Your task to perform on an android device: turn off translation in the chrome app Image 0: 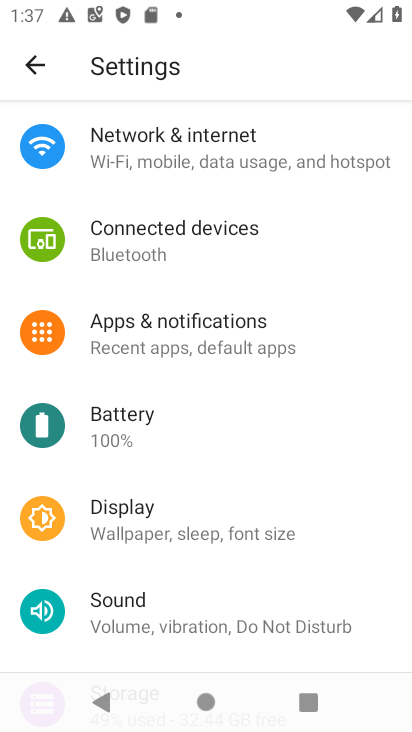
Step 0: press home button
Your task to perform on an android device: turn off translation in the chrome app Image 1: 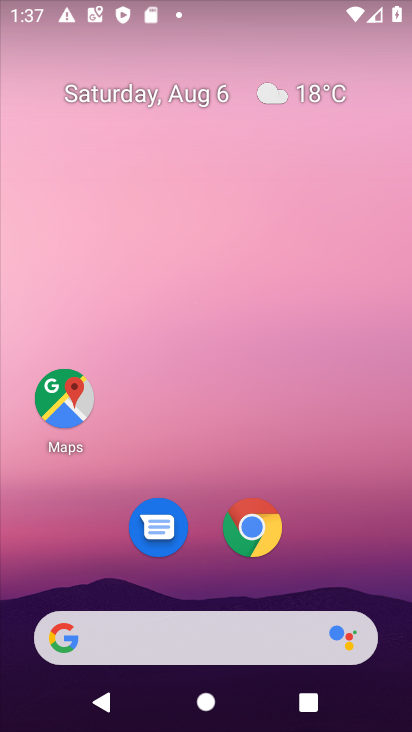
Step 1: drag from (252, 431) to (264, 87)
Your task to perform on an android device: turn off translation in the chrome app Image 2: 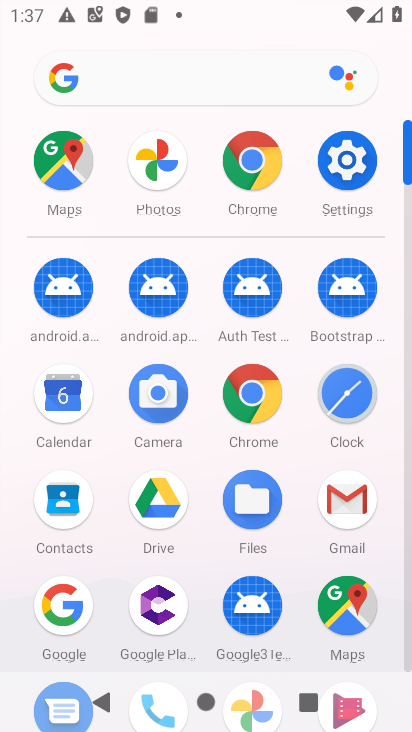
Step 2: click (264, 413)
Your task to perform on an android device: turn off translation in the chrome app Image 3: 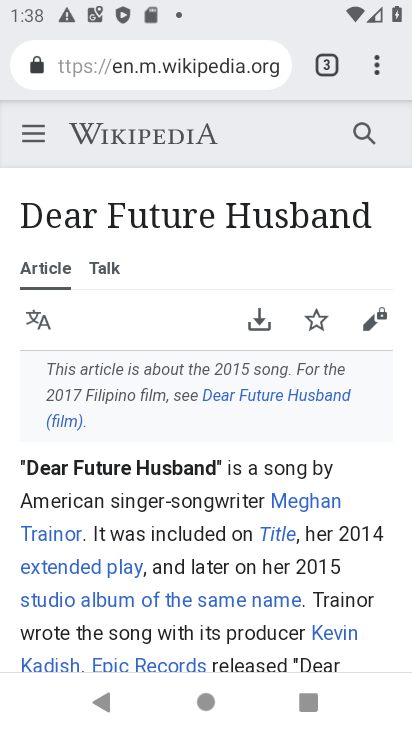
Step 3: click (381, 65)
Your task to perform on an android device: turn off translation in the chrome app Image 4: 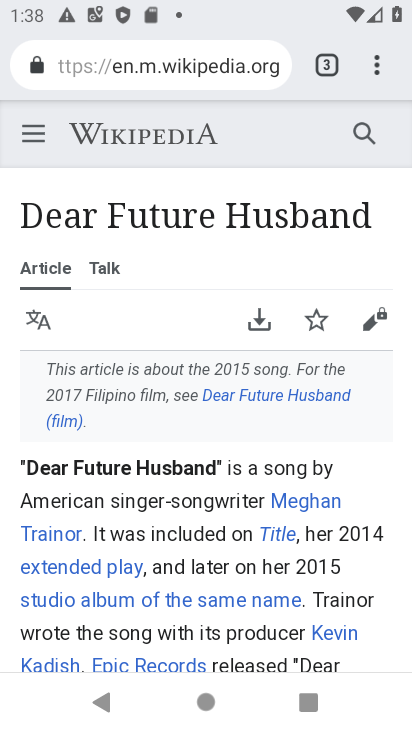
Step 4: click (373, 70)
Your task to perform on an android device: turn off translation in the chrome app Image 5: 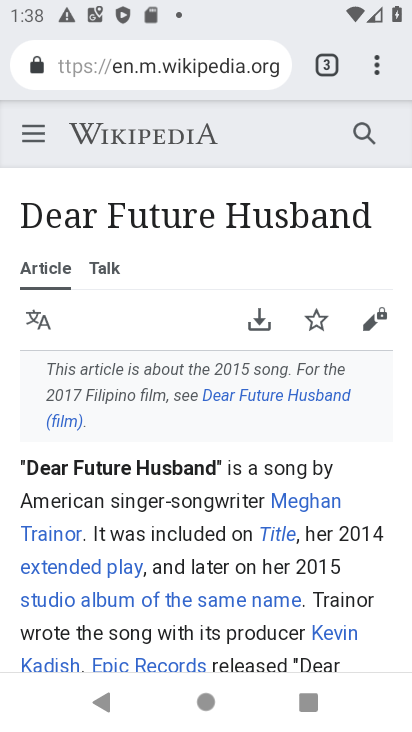
Step 5: click (361, 69)
Your task to perform on an android device: turn off translation in the chrome app Image 6: 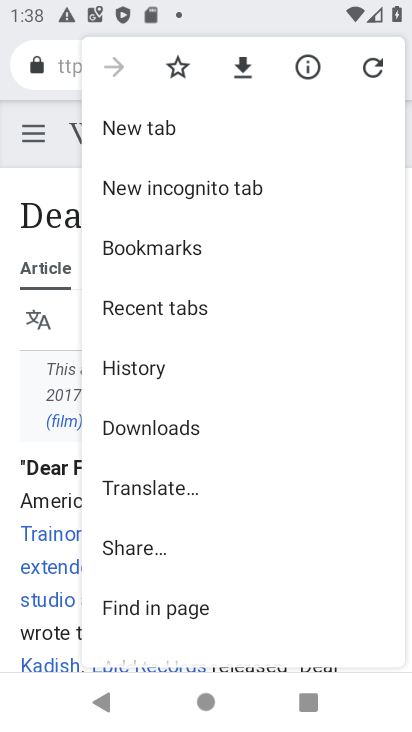
Step 6: drag from (172, 519) to (179, 265)
Your task to perform on an android device: turn off translation in the chrome app Image 7: 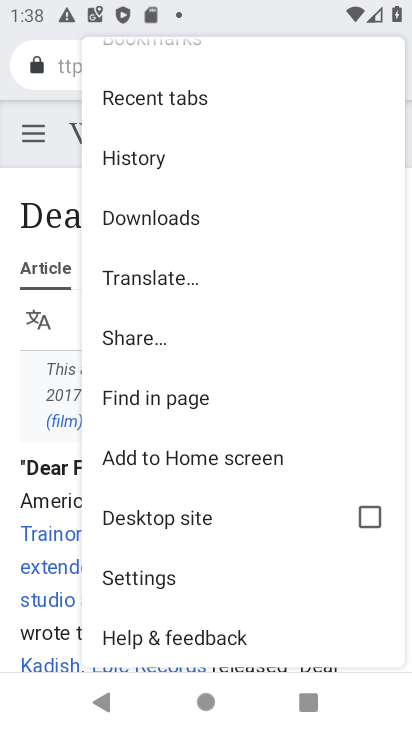
Step 7: click (175, 570)
Your task to perform on an android device: turn off translation in the chrome app Image 8: 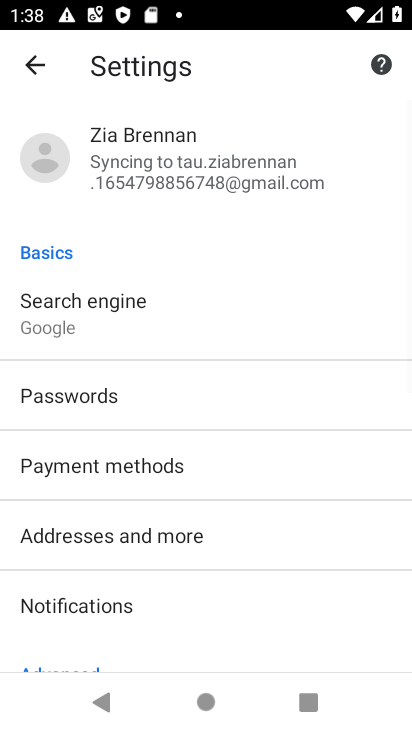
Step 8: drag from (167, 587) to (132, 176)
Your task to perform on an android device: turn off translation in the chrome app Image 9: 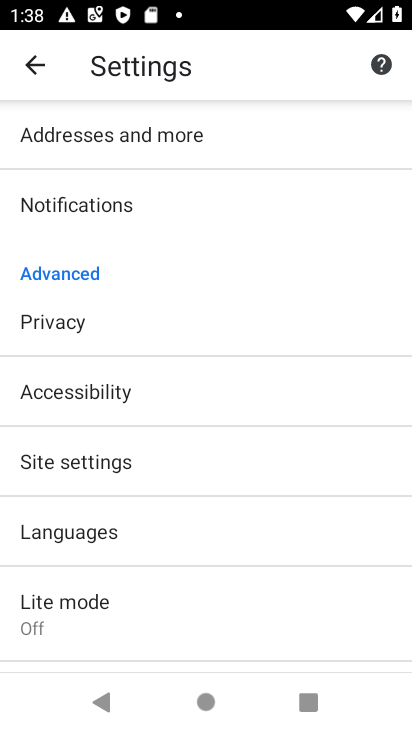
Step 9: click (124, 533)
Your task to perform on an android device: turn off translation in the chrome app Image 10: 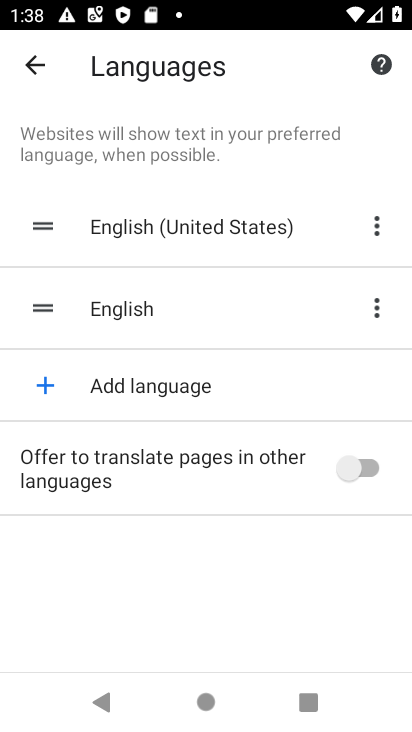
Step 10: task complete